Your task to perform on an android device: When is my next meeting? Image 0: 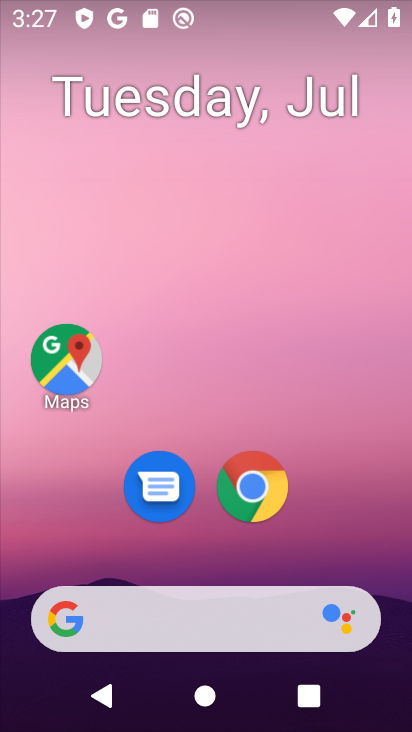
Step 0: drag from (205, 541) to (305, 5)
Your task to perform on an android device: When is my next meeting? Image 1: 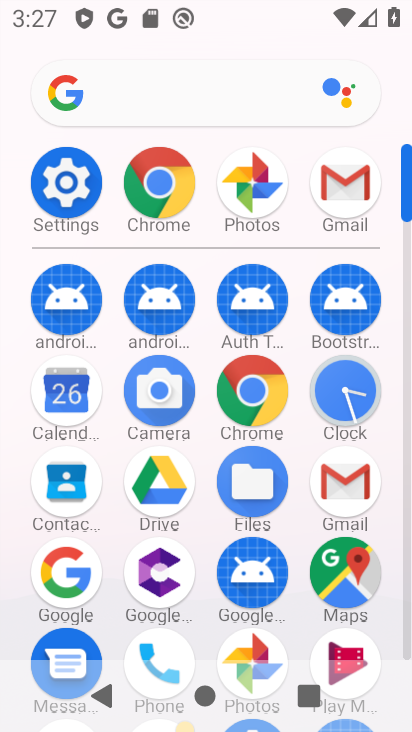
Step 1: click (54, 407)
Your task to perform on an android device: When is my next meeting? Image 2: 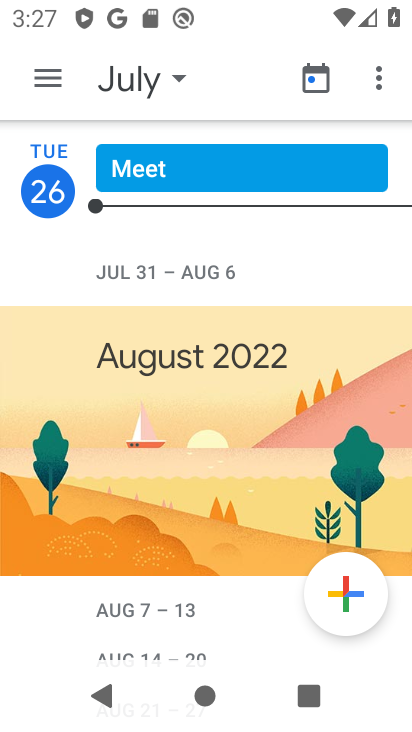
Step 2: task complete